Your task to perform on an android device: Open settings Image 0: 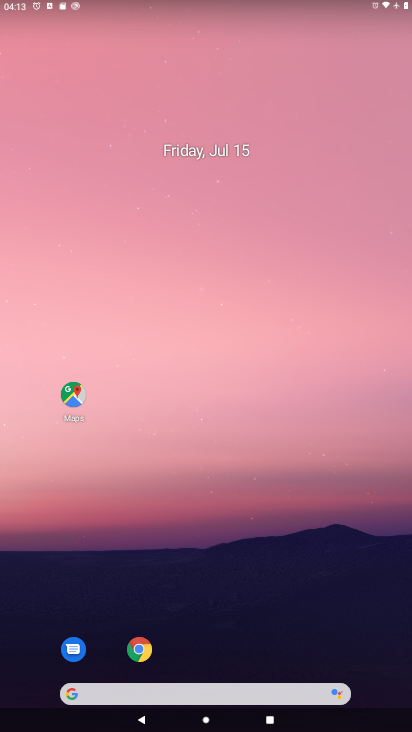
Step 0: drag from (391, 650) to (343, 40)
Your task to perform on an android device: Open settings Image 1: 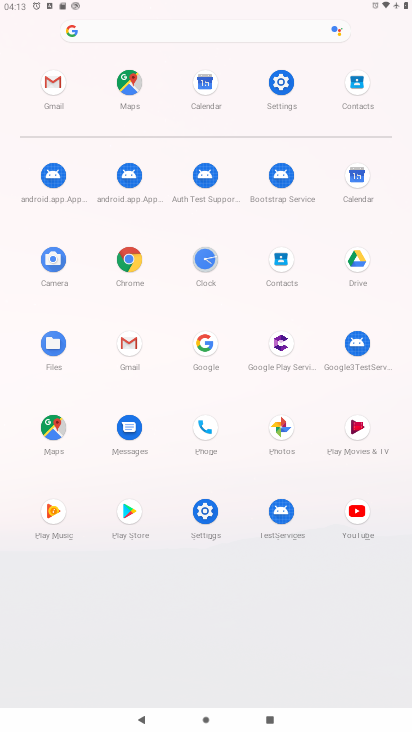
Step 1: click (205, 513)
Your task to perform on an android device: Open settings Image 2: 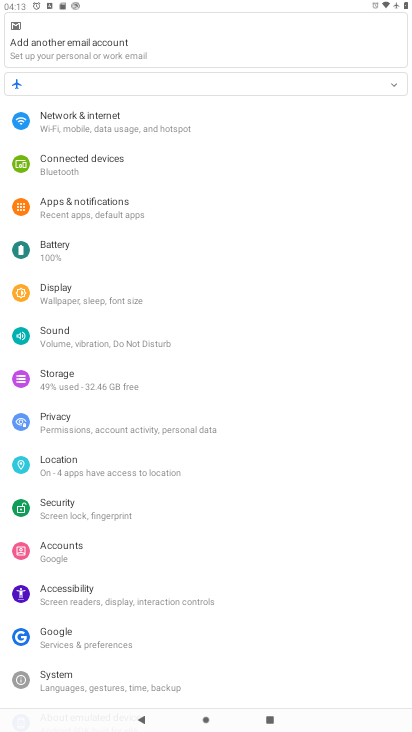
Step 2: task complete